Your task to perform on an android device: What's on my calendar tomorrow? Image 0: 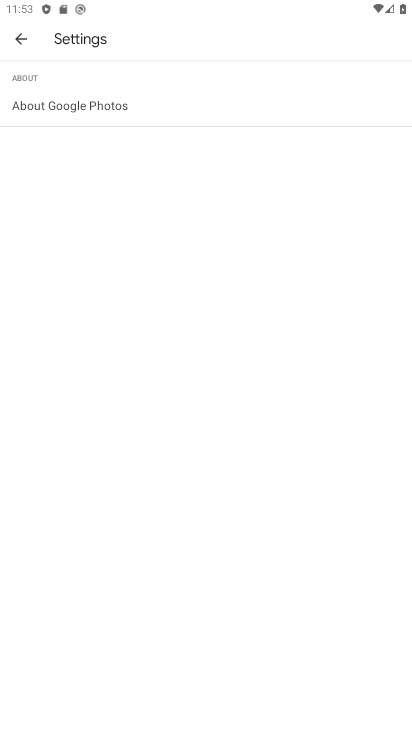
Step 0: press home button
Your task to perform on an android device: What's on my calendar tomorrow? Image 1: 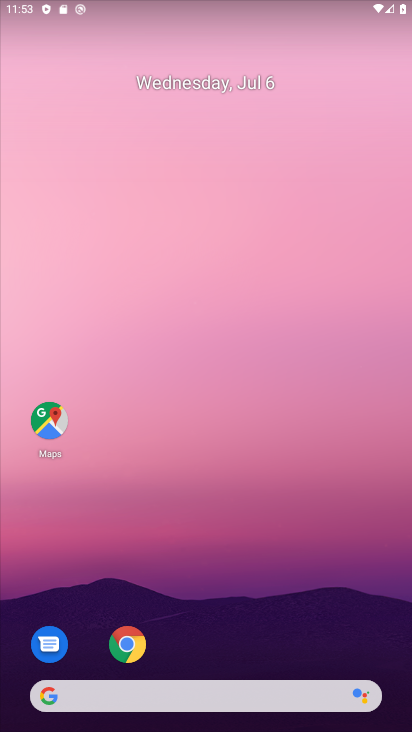
Step 1: drag from (190, 701) to (19, 20)
Your task to perform on an android device: What's on my calendar tomorrow? Image 2: 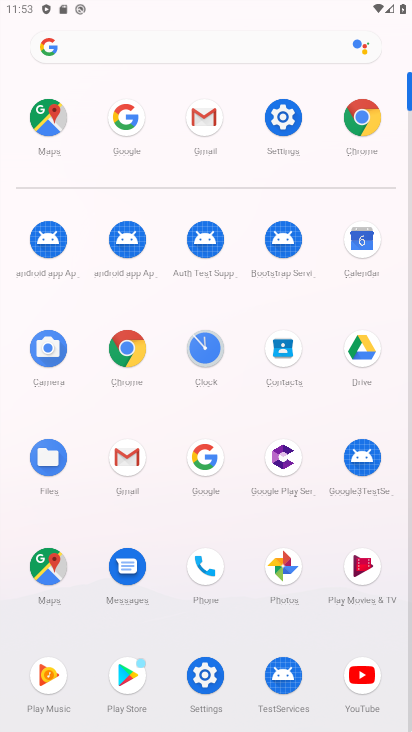
Step 2: click (367, 255)
Your task to perform on an android device: What's on my calendar tomorrow? Image 3: 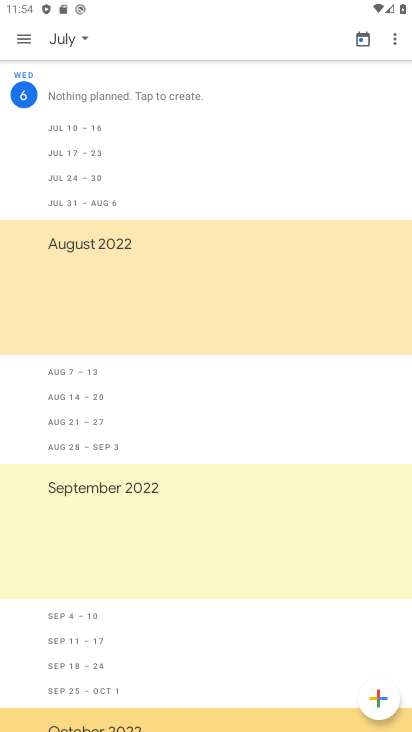
Step 3: click (74, 44)
Your task to perform on an android device: What's on my calendar tomorrow? Image 4: 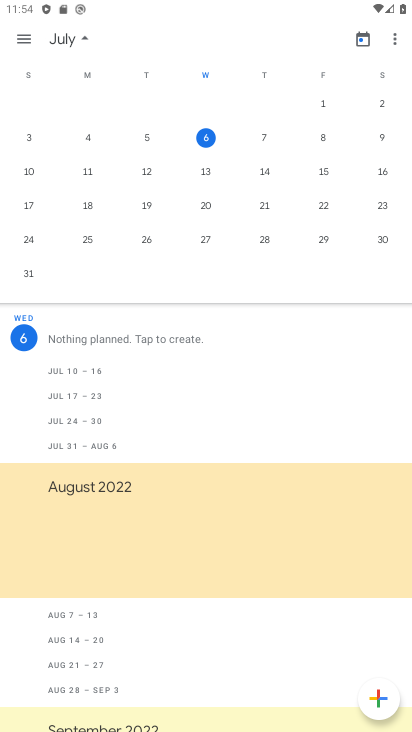
Step 4: click (260, 132)
Your task to perform on an android device: What's on my calendar tomorrow? Image 5: 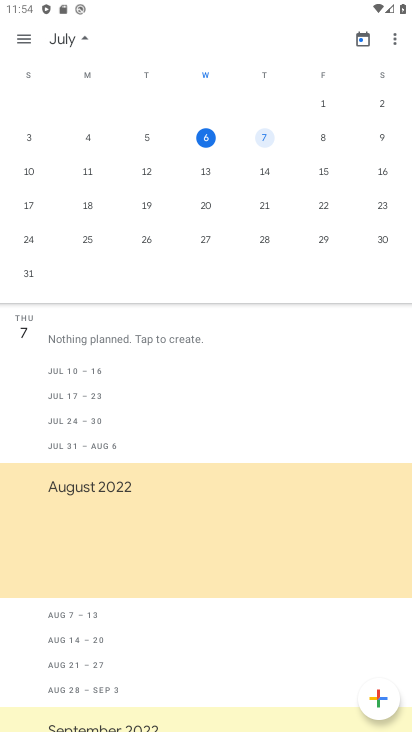
Step 5: click (91, 36)
Your task to perform on an android device: What's on my calendar tomorrow? Image 6: 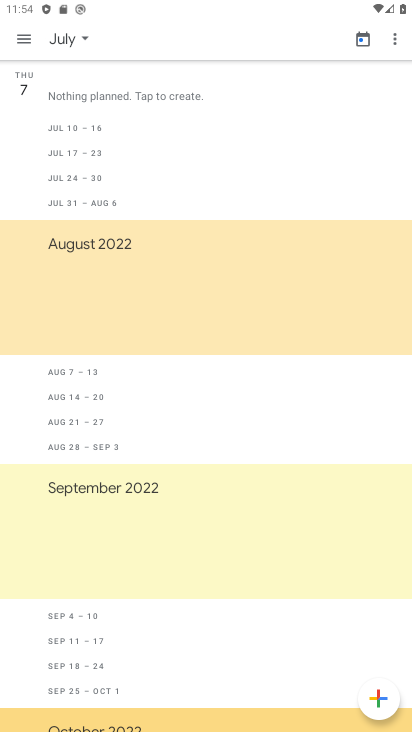
Step 6: task complete